Your task to perform on an android device: check google app version Image 0: 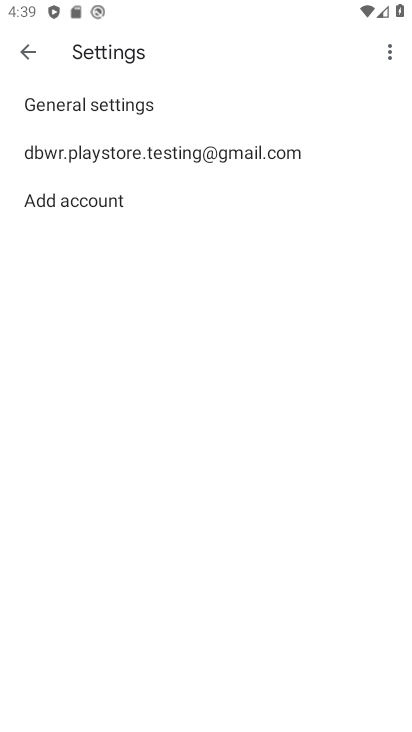
Step 0: press home button
Your task to perform on an android device: check google app version Image 1: 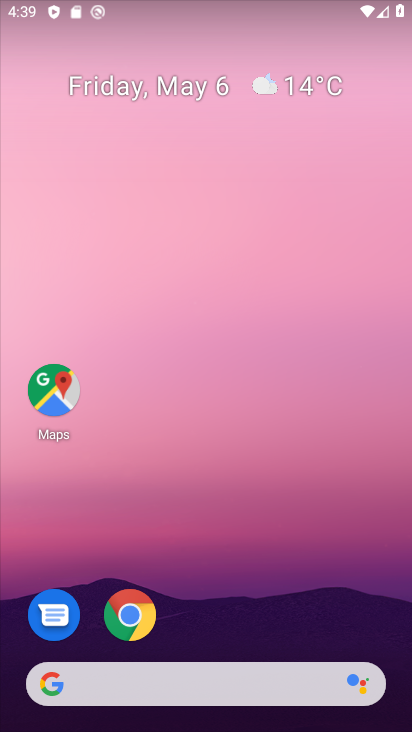
Step 1: drag from (232, 635) to (251, 257)
Your task to perform on an android device: check google app version Image 2: 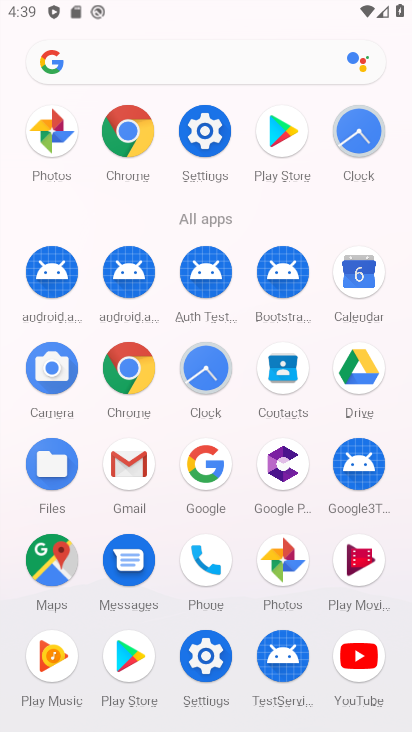
Step 2: click (128, 173)
Your task to perform on an android device: check google app version Image 3: 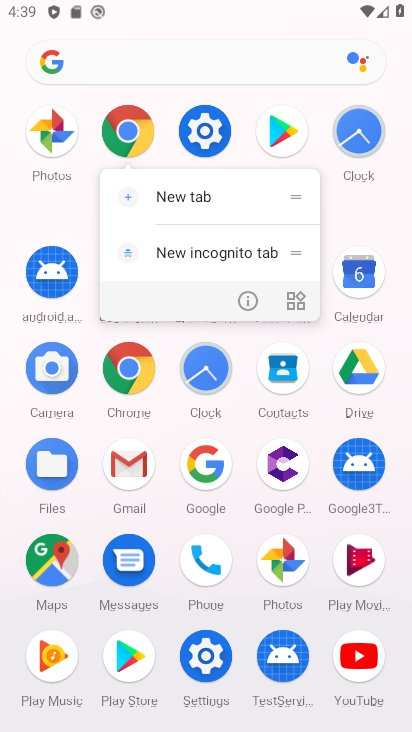
Step 3: click (239, 295)
Your task to perform on an android device: check google app version Image 4: 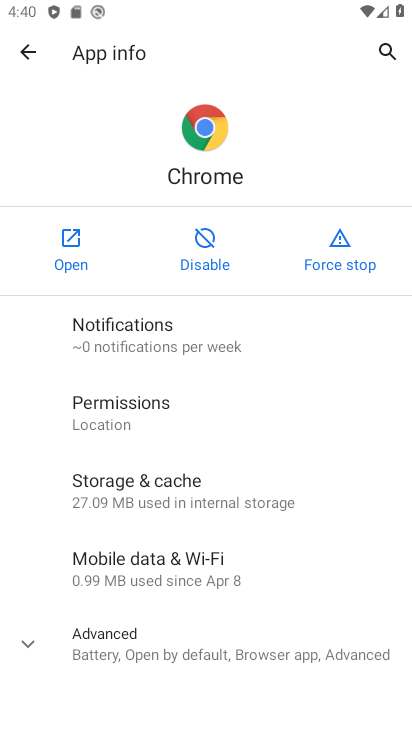
Step 4: task complete